Your task to perform on an android device: turn notification dots on Image 0: 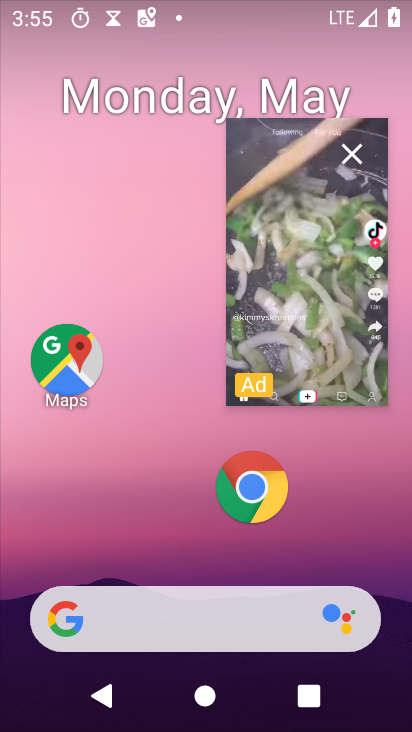
Step 0: drag from (321, 330) to (84, 731)
Your task to perform on an android device: turn notification dots on Image 1: 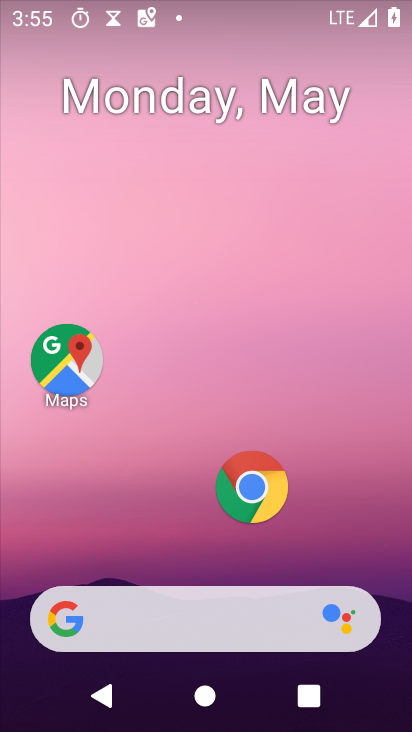
Step 1: drag from (226, 561) to (226, 96)
Your task to perform on an android device: turn notification dots on Image 2: 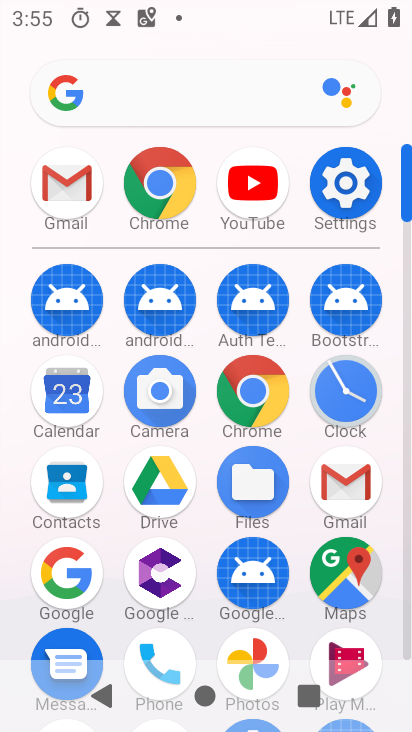
Step 2: click (363, 165)
Your task to perform on an android device: turn notification dots on Image 3: 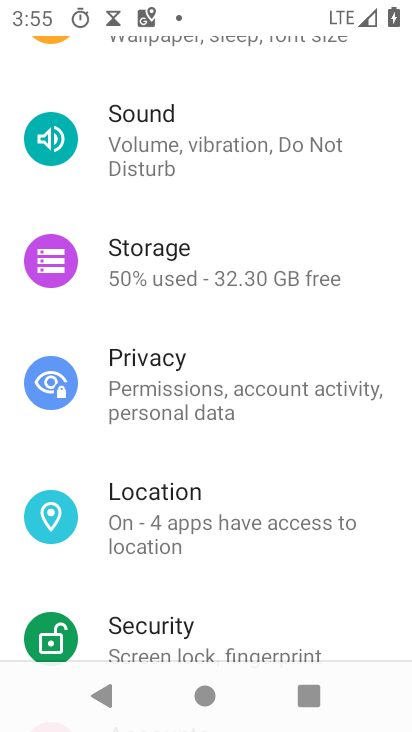
Step 3: drag from (230, 206) to (224, 537)
Your task to perform on an android device: turn notification dots on Image 4: 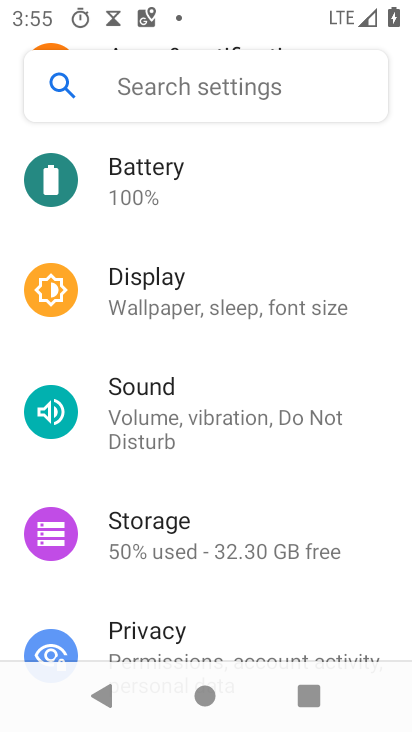
Step 4: drag from (201, 242) to (273, 429)
Your task to perform on an android device: turn notification dots on Image 5: 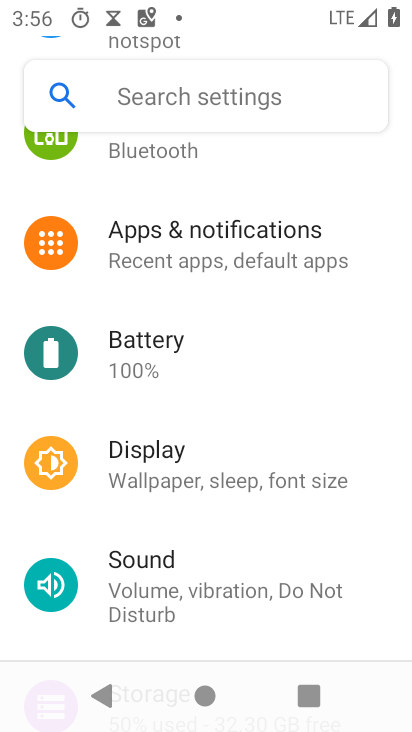
Step 5: click (238, 249)
Your task to perform on an android device: turn notification dots on Image 6: 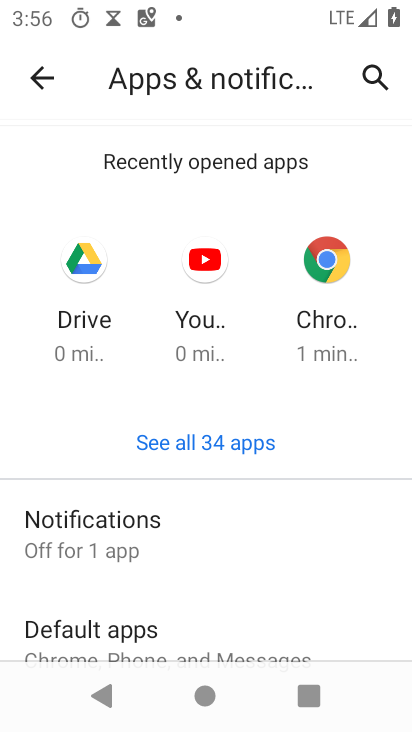
Step 6: click (179, 546)
Your task to perform on an android device: turn notification dots on Image 7: 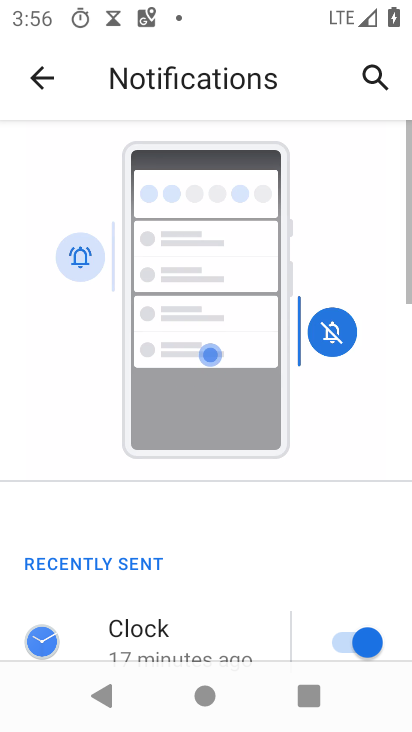
Step 7: drag from (228, 632) to (257, 225)
Your task to perform on an android device: turn notification dots on Image 8: 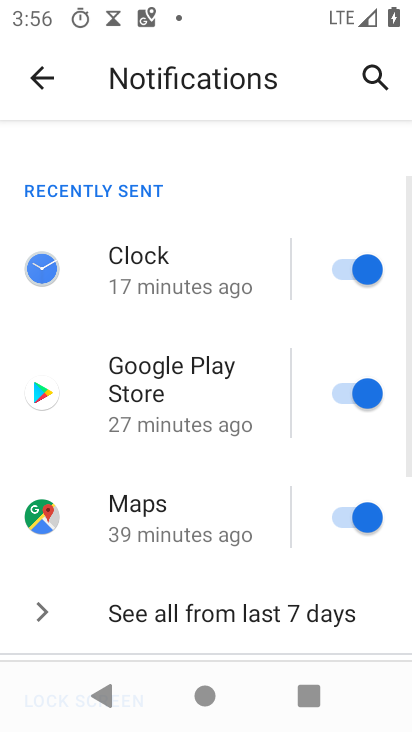
Step 8: drag from (248, 588) to (247, 195)
Your task to perform on an android device: turn notification dots on Image 9: 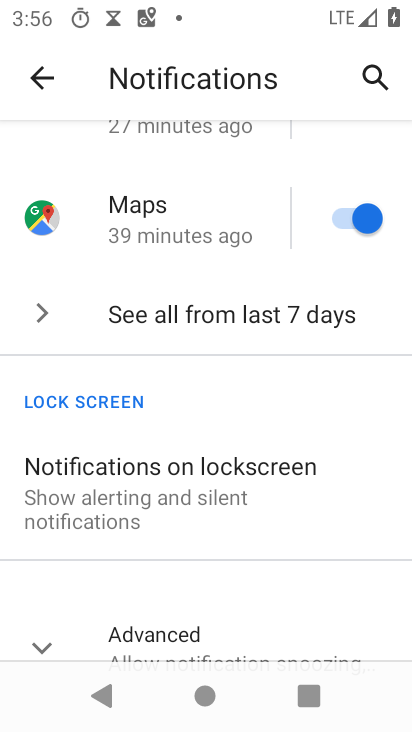
Step 9: drag from (182, 570) to (169, 194)
Your task to perform on an android device: turn notification dots on Image 10: 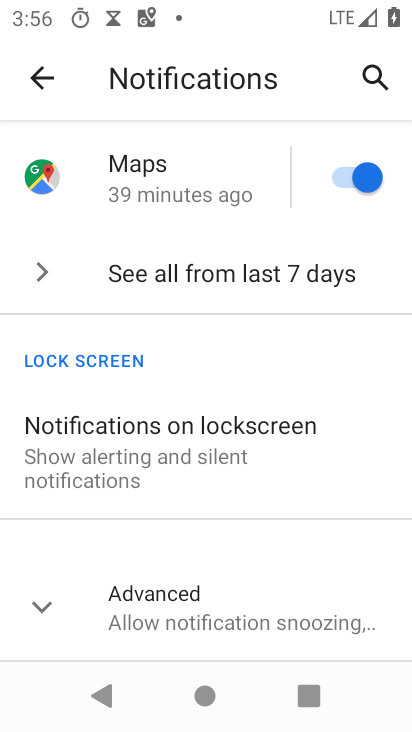
Step 10: click (176, 610)
Your task to perform on an android device: turn notification dots on Image 11: 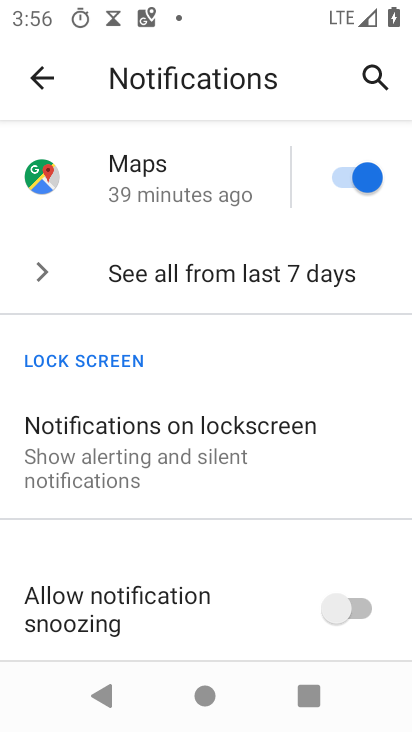
Step 11: drag from (129, 629) to (132, 193)
Your task to perform on an android device: turn notification dots on Image 12: 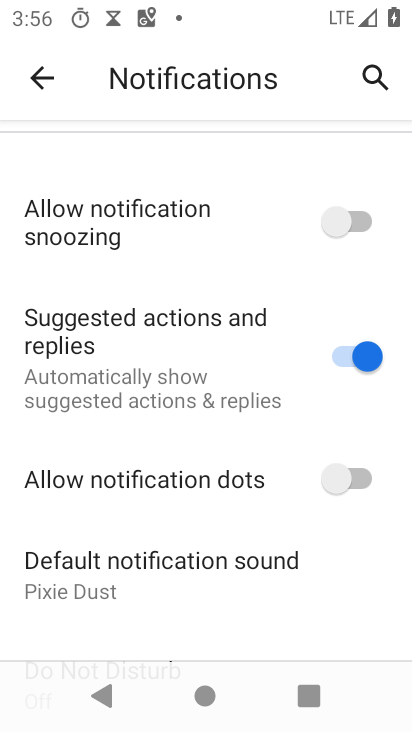
Step 12: click (348, 484)
Your task to perform on an android device: turn notification dots on Image 13: 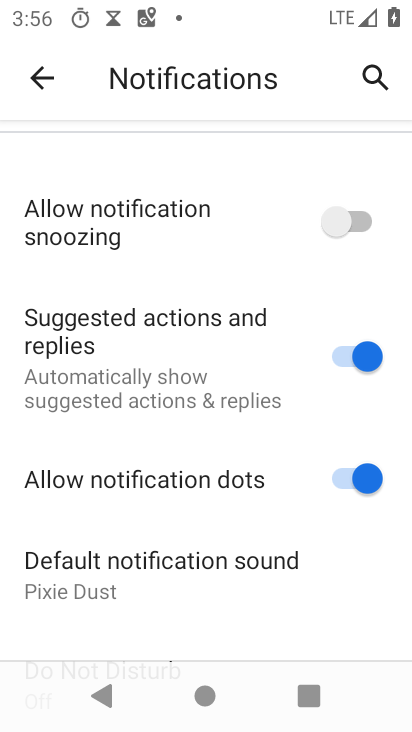
Step 13: task complete